Your task to perform on an android device: make emails show in primary in the gmail app Image 0: 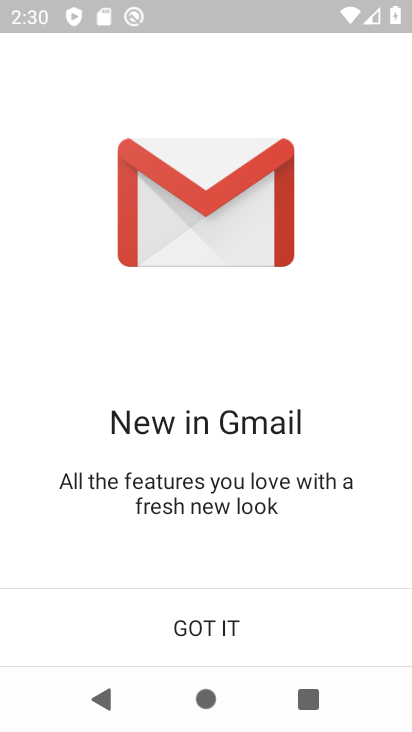
Step 0: press home button
Your task to perform on an android device: make emails show in primary in the gmail app Image 1: 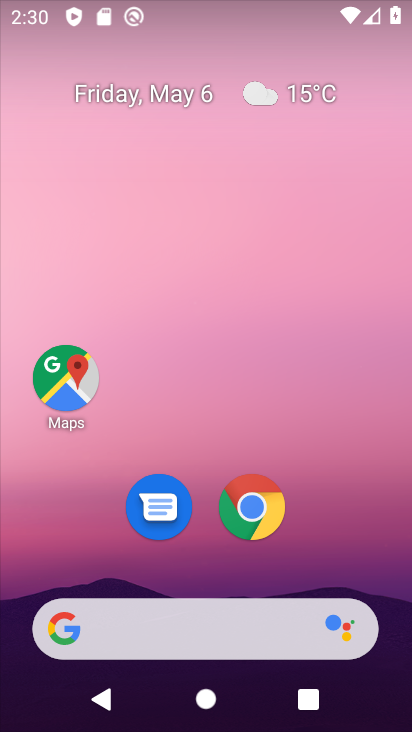
Step 1: drag from (351, 522) to (358, 43)
Your task to perform on an android device: make emails show in primary in the gmail app Image 2: 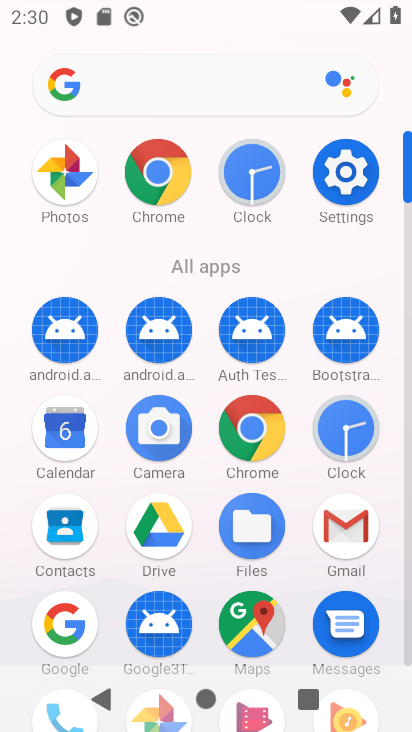
Step 2: click (338, 528)
Your task to perform on an android device: make emails show in primary in the gmail app Image 3: 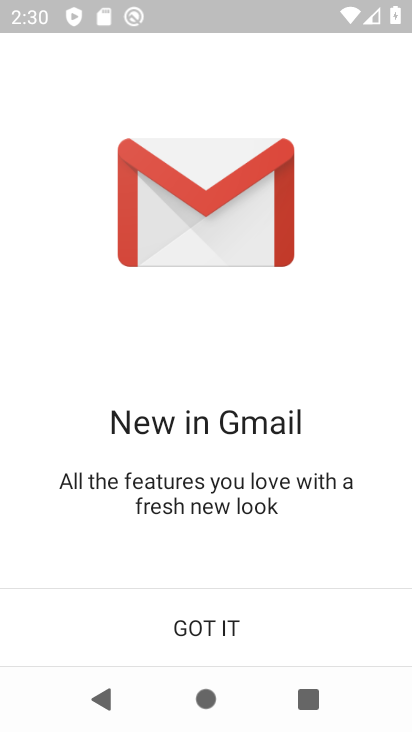
Step 3: click (227, 631)
Your task to perform on an android device: make emails show in primary in the gmail app Image 4: 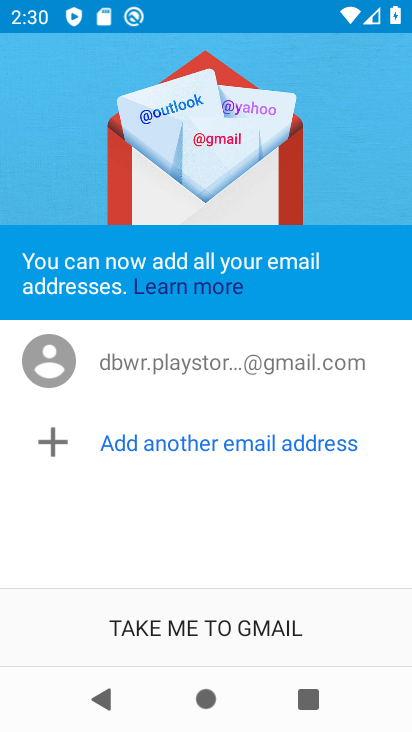
Step 4: click (190, 629)
Your task to perform on an android device: make emails show in primary in the gmail app Image 5: 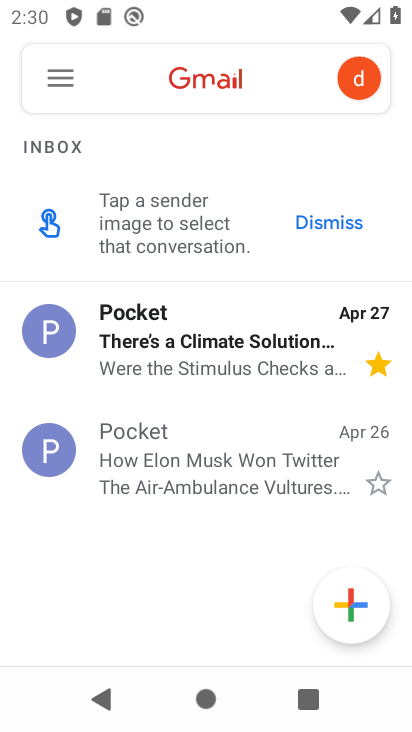
Step 5: click (64, 76)
Your task to perform on an android device: make emails show in primary in the gmail app Image 6: 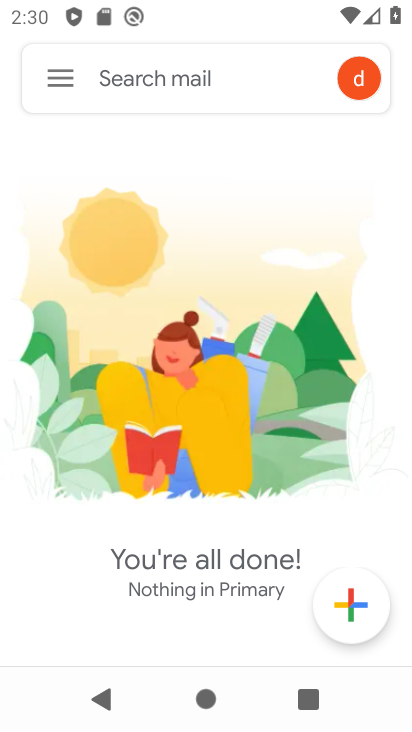
Step 6: click (48, 69)
Your task to perform on an android device: make emails show in primary in the gmail app Image 7: 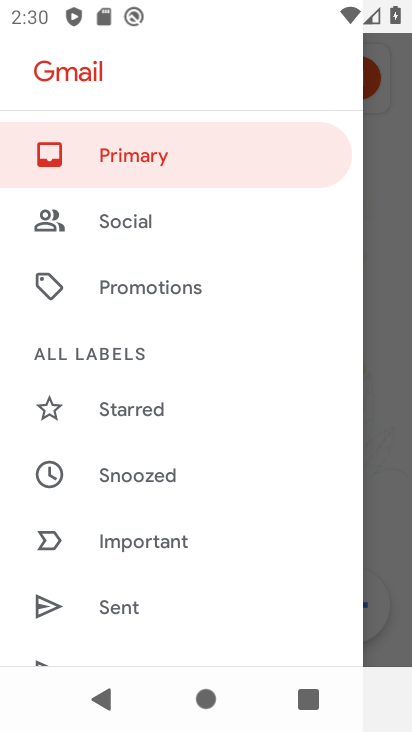
Step 7: click (169, 158)
Your task to perform on an android device: make emails show in primary in the gmail app Image 8: 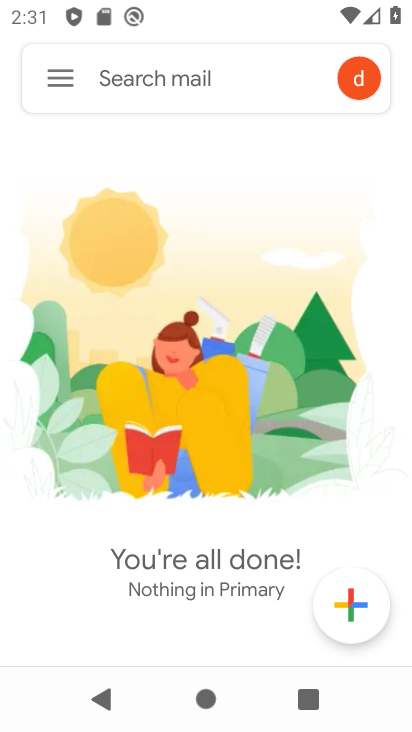
Step 8: task complete